Your task to perform on an android device: Show the shopping cart on amazon.com. Image 0: 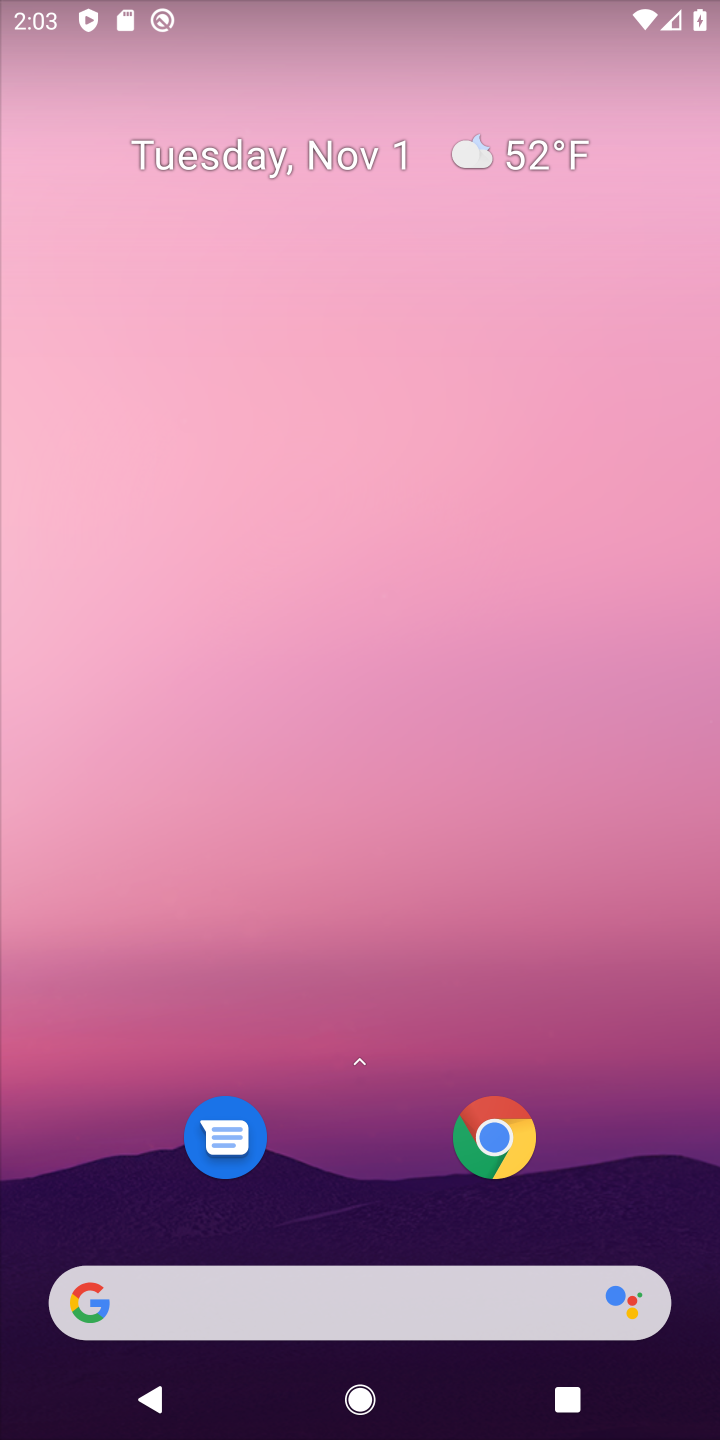
Step 0: click (438, 1320)
Your task to perform on an android device: Show the shopping cart on amazon.com. Image 1: 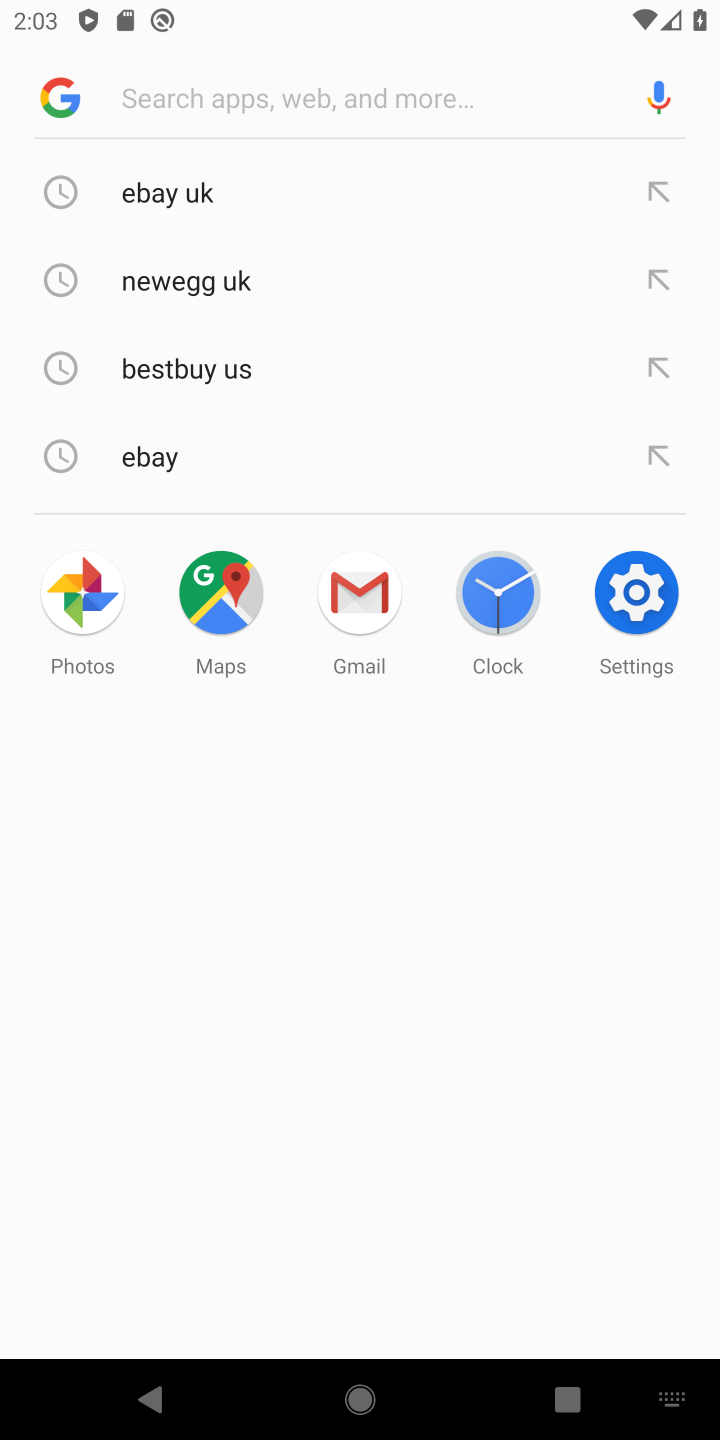
Step 1: type "amazon"
Your task to perform on an android device: Show the shopping cart on amazon.com. Image 2: 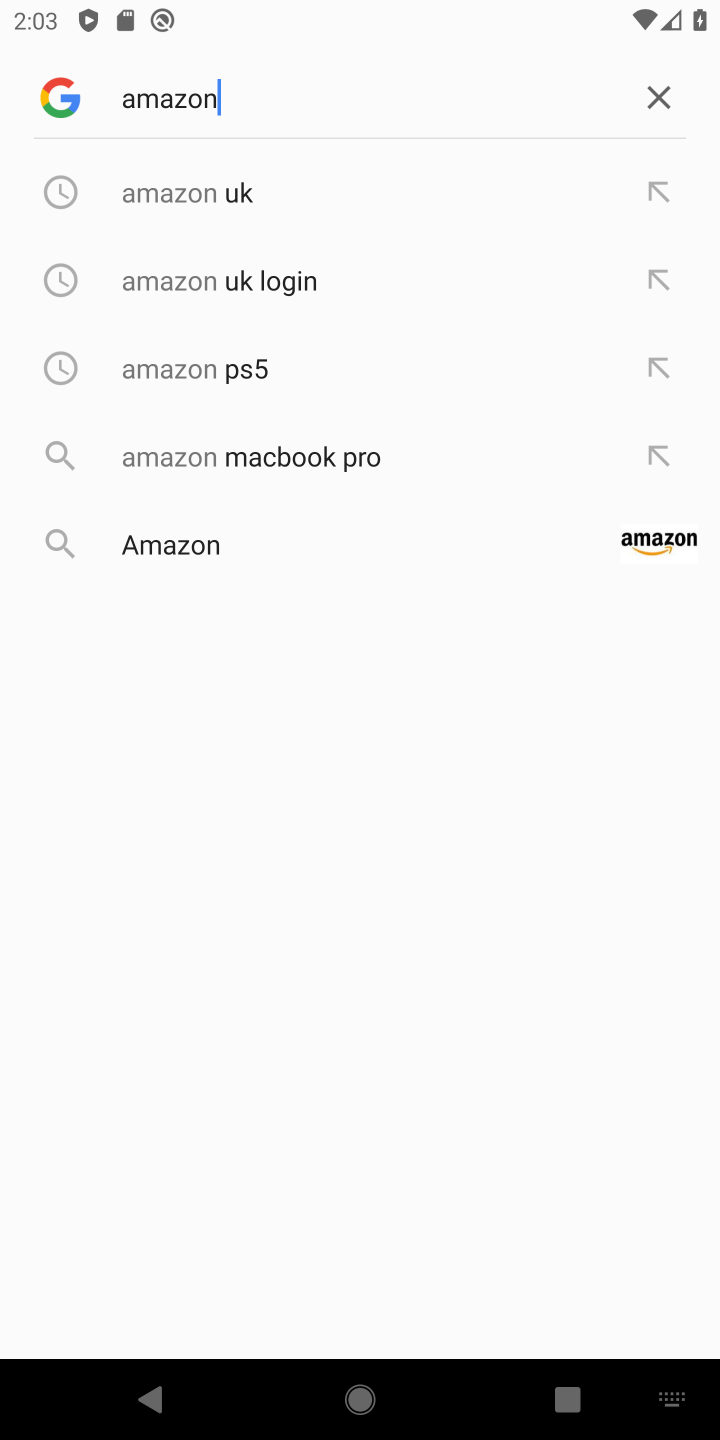
Step 2: click (178, 209)
Your task to perform on an android device: Show the shopping cart on amazon.com. Image 3: 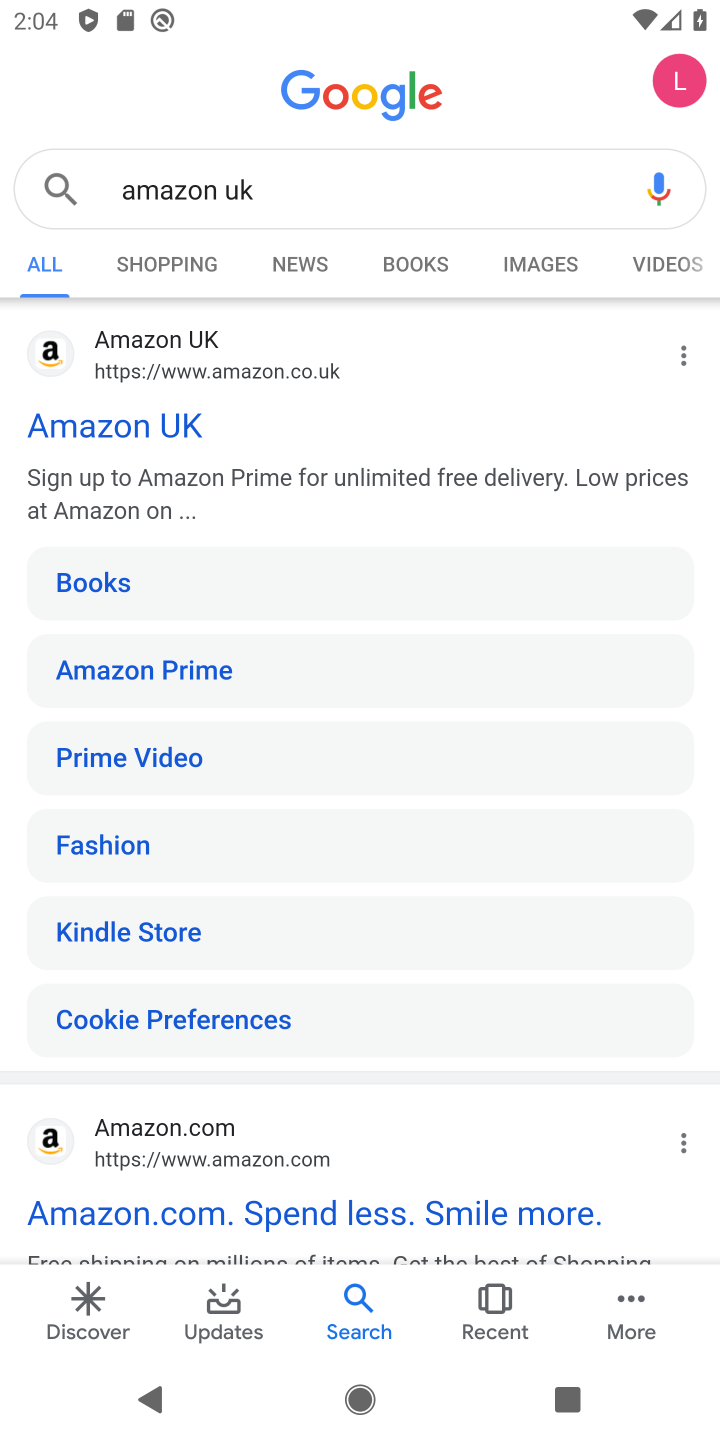
Step 3: click (78, 446)
Your task to perform on an android device: Show the shopping cart on amazon.com. Image 4: 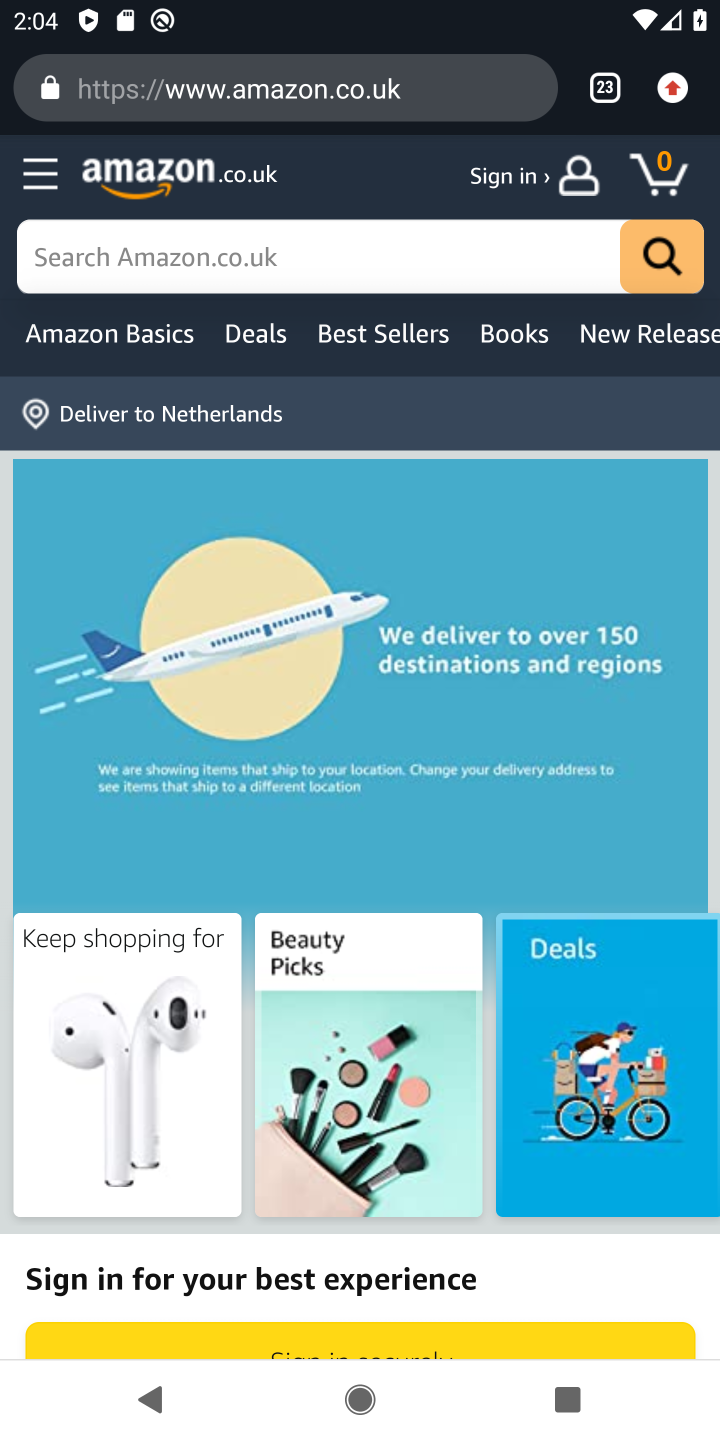
Step 4: click (78, 273)
Your task to perform on an android device: Show the shopping cart on amazon.com. Image 5: 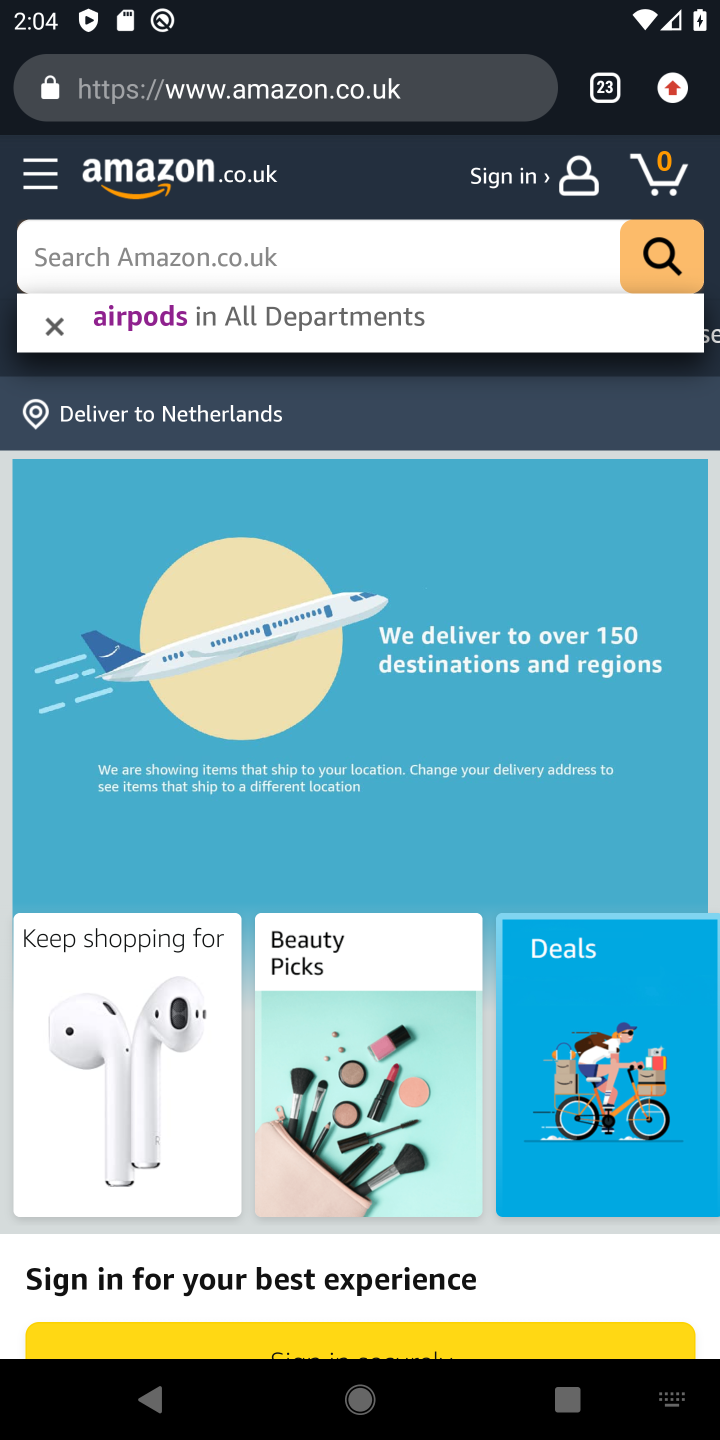
Step 5: click (670, 172)
Your task to perform on an android device: Show the shopping cart on amazon.com. Image 6: 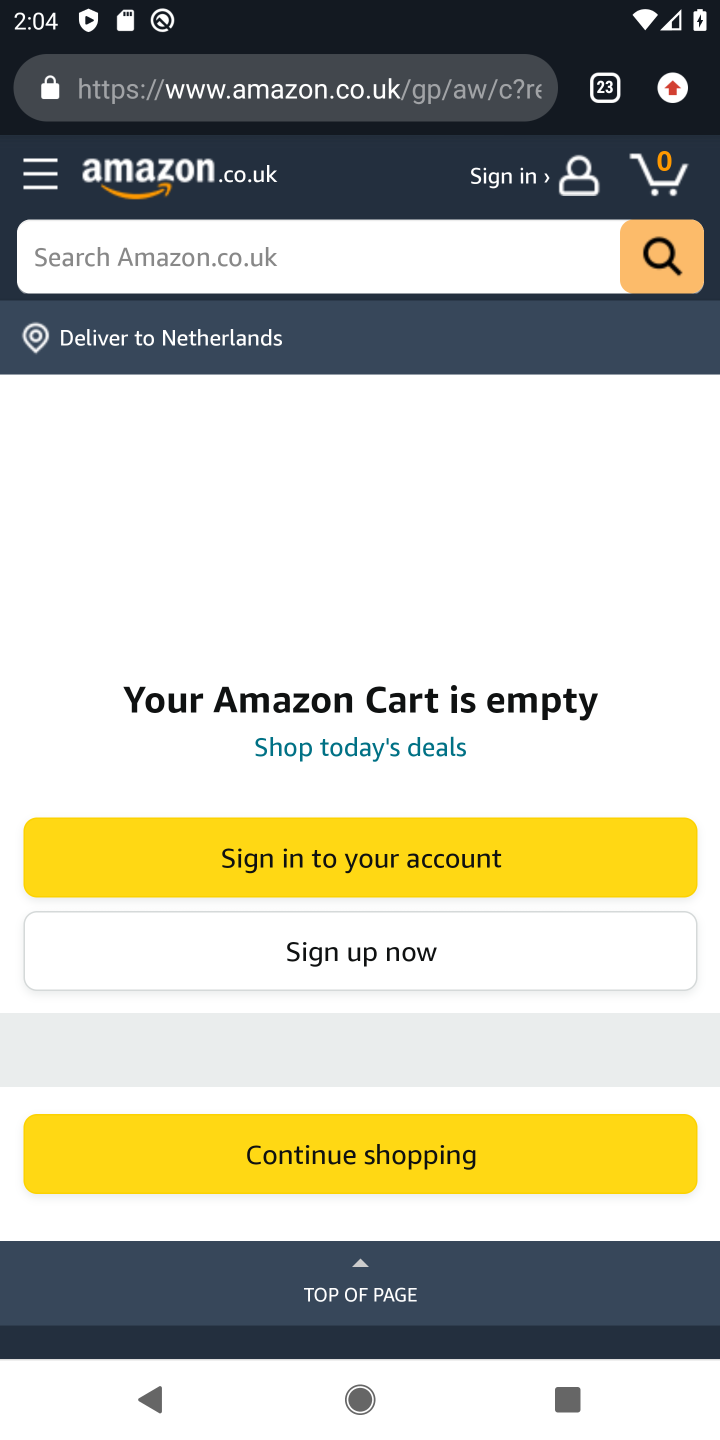
Step 6: task complete